Your task to perform on an android device: open sync settings in chrome Image 0: 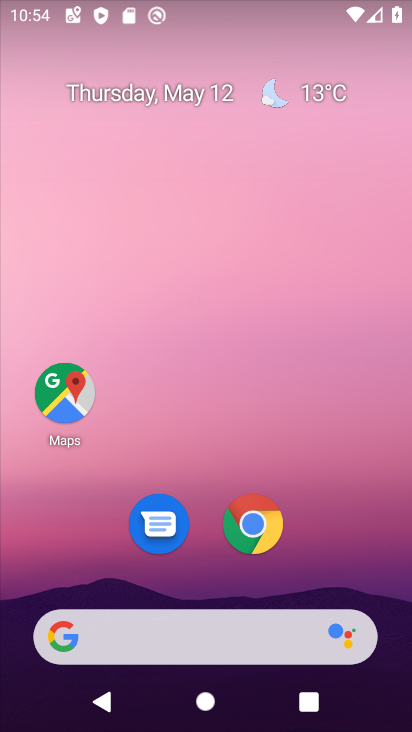
Step 0: click (259, 531)
Your task to perform on an android device: open sync settings in chrome Image 1: 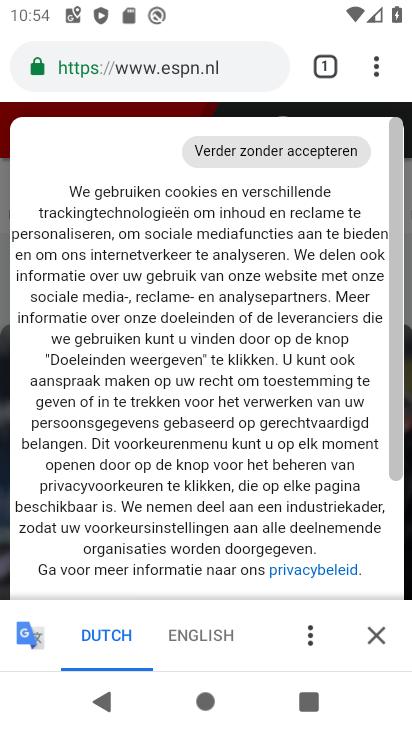
Step 1: click (374, 62)
Your task to perform on an android device: open sync settings in chrome Image 2: 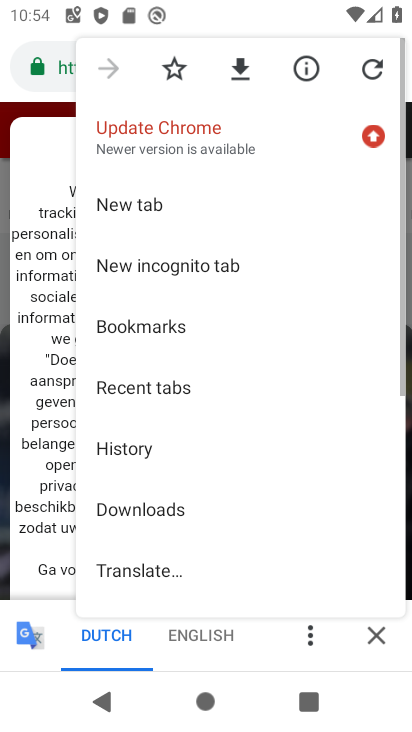
Step 2: drag from (236, 477) to (268, 177)
Your task to perform on an android device: open sync settings in chrome Image 3: 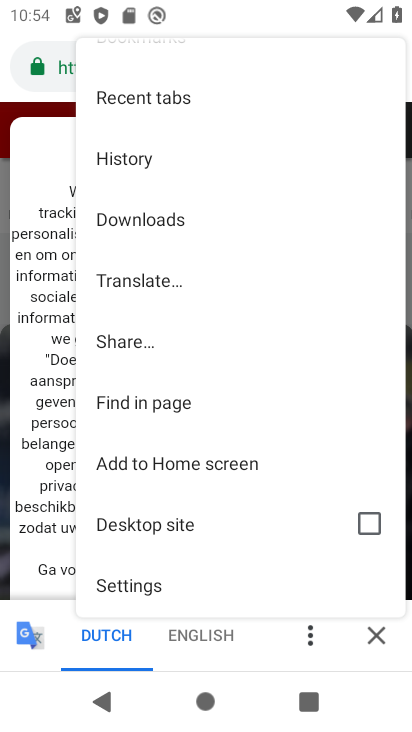
Step 3: click (137, 581)
Your task to perform on an android device: open sync settings in chrome Image 4: 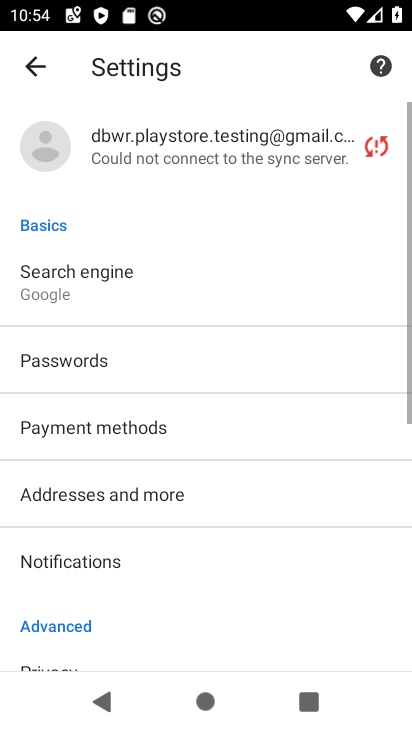
Step 4: click (224, 144)
Your task to perform on an android device: open sync settings in chrome Image 5: 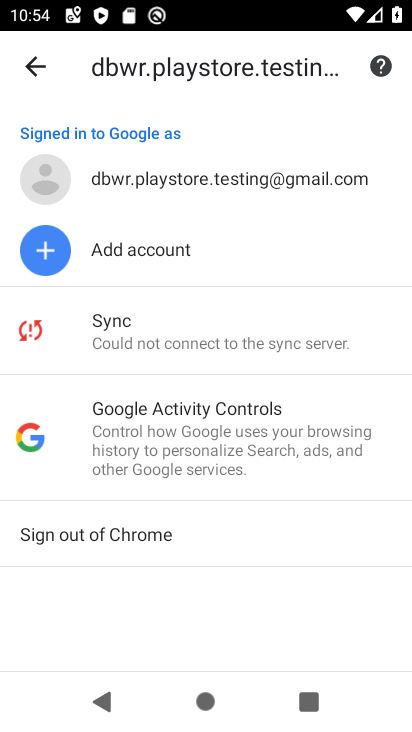
Step 5: click (165, 318)
Your task to perform on an android device: open sync settings in chrome Image 6: 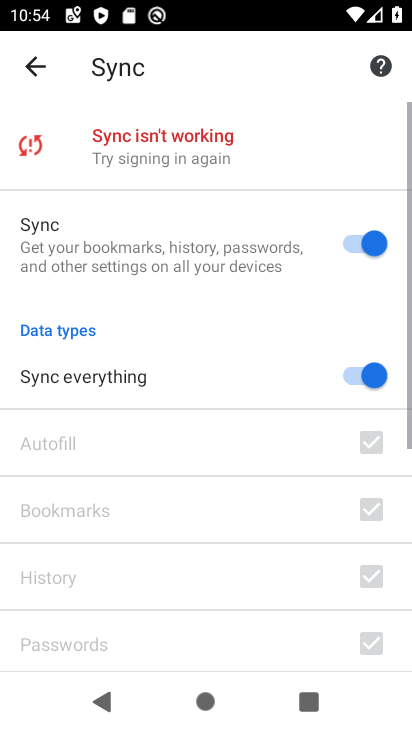
Step 6: task complete